Your task to perform on an android device: Open the calendar app, open the side menu, and click the "Day" option Image 0: 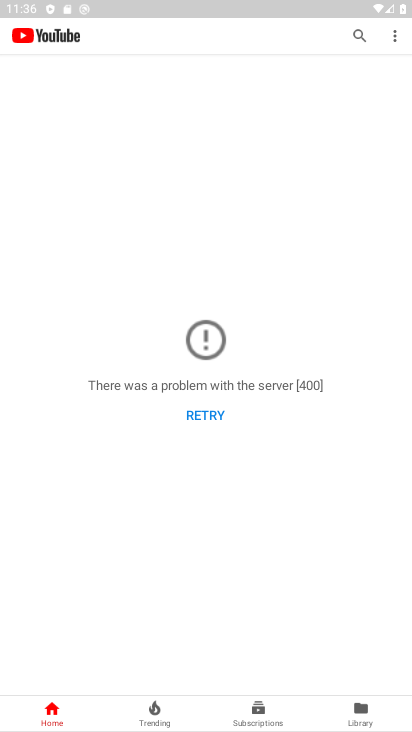
Step 0: press home button
Your task to perform on an android device: Open the calendar app, open the side menu, and click the "Day" option Image 1: 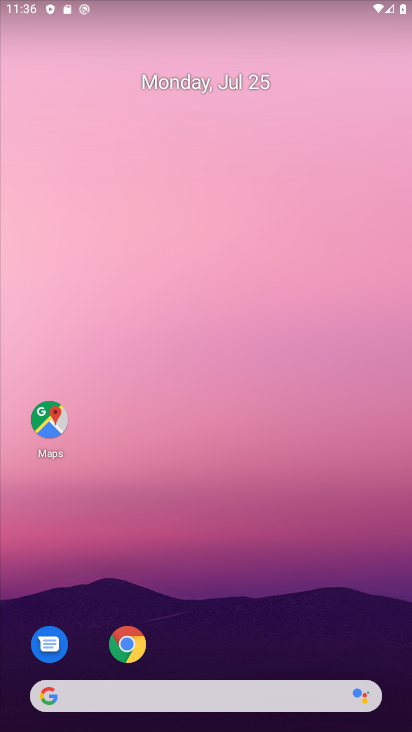
Step 1: drag from (201, 710) to (243, 71)
Your task to perform on an android device: Open the calendar app, open the side menu, and click the "Day" option Image 2: 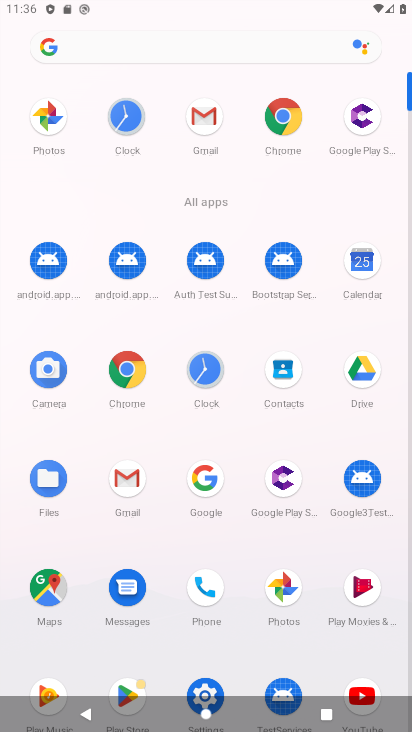
Step 2: click (363, 264)
Your task to perform on an android device: Open the calendar app, open the side menu, and click the "Day" option Image 3: 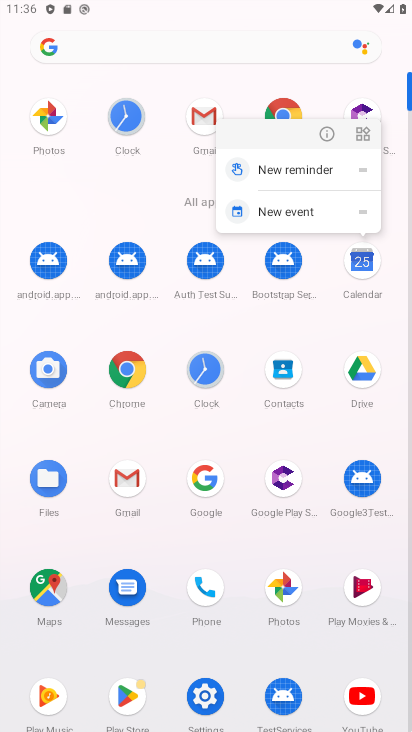
Step 3: click (363, 261)
Your task to perform on an android device: Open the calendar app, open the side menu, and click the "Day" option Image 4: 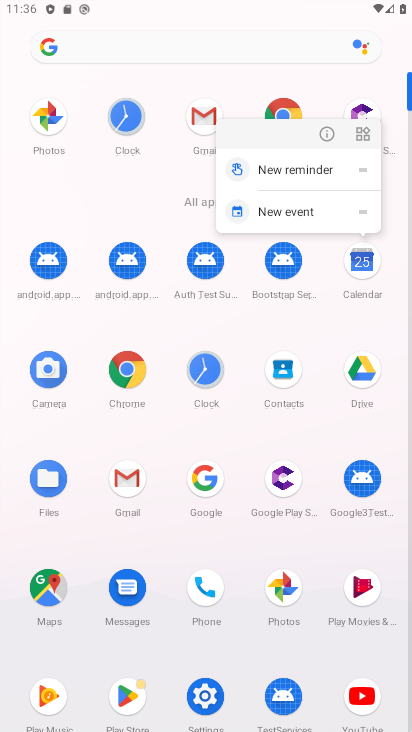
Step 4: click (363, 261)
Your task to perform on an android device: Open the calendar app, open the side menu, and click the "Day" option Image 5: 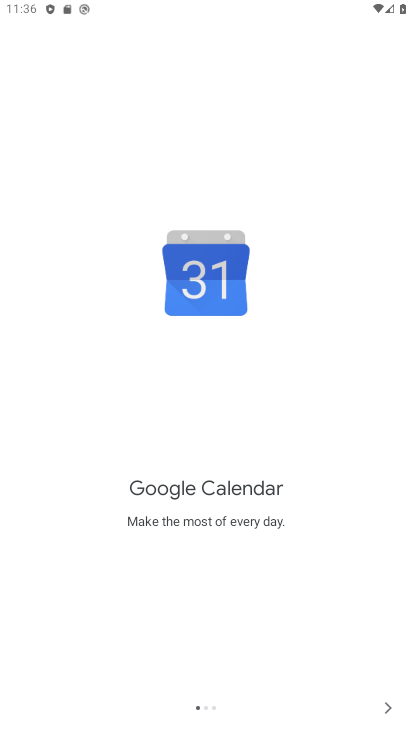
Step 5: click (390, 708)
Your task to perform on an android device: Open the calendar app, open the side menu, and click the "Day" option Image 6: 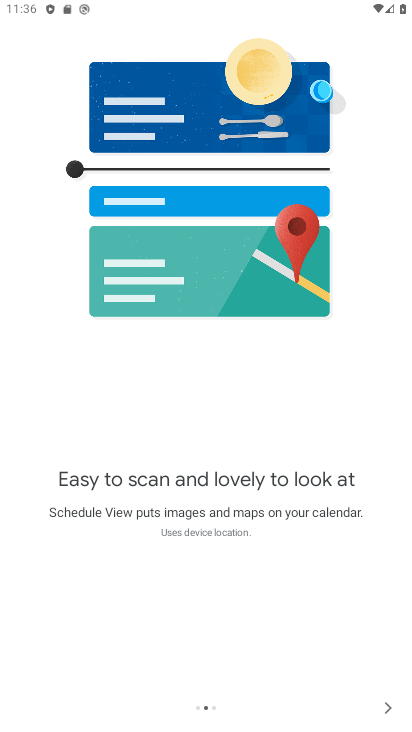
Step 6: click (390, 708)
Your task to perform on an android device: Open the calendar app, open the side menu, and click the "Day" option Image 7: 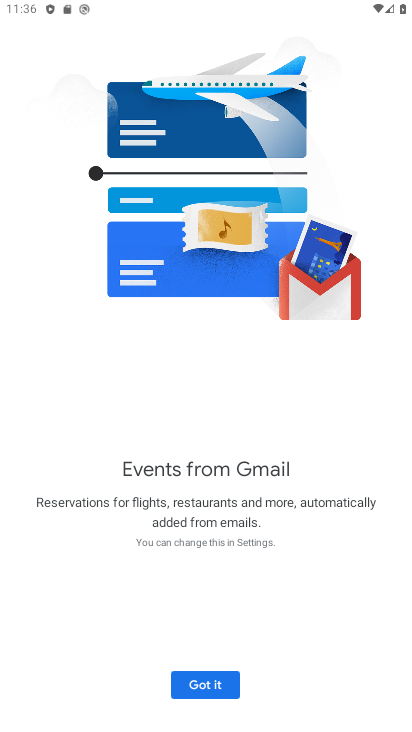
Step 7: click (190, 686)
Your task to perform on an android device: Open the calendar app, open the side menu, and click the "Day" option Image 8: 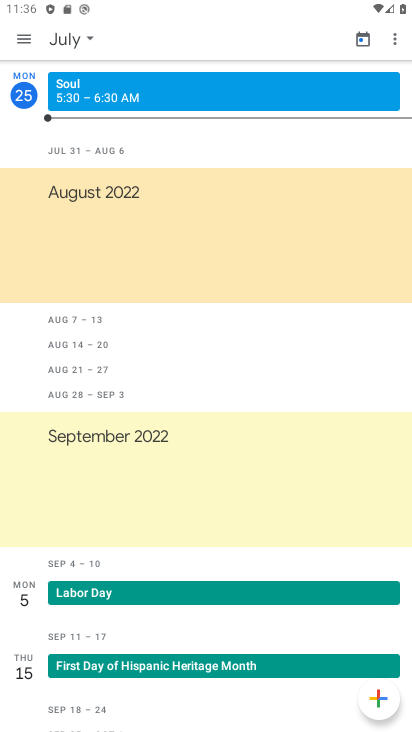
Step 8: click (32, 35)
Your task to perform on an android device: Open the calendar app, open the side menu, and click the "Day" option Image 9: 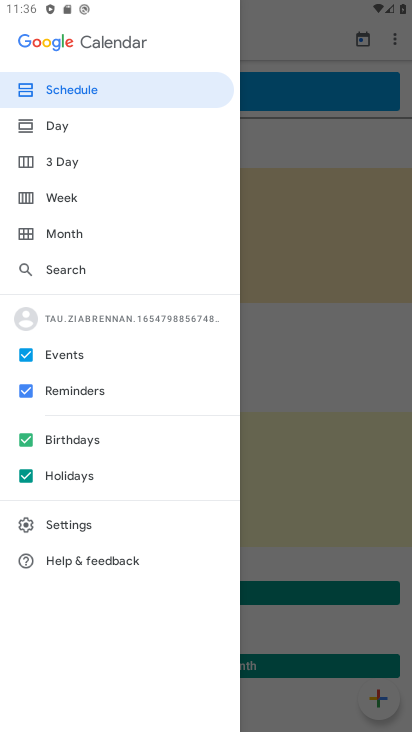
Step 9: click (64, 132)
Your task to perform on an android device: Open the calendar app, open the side menu, and click the "Day" option Image 10: 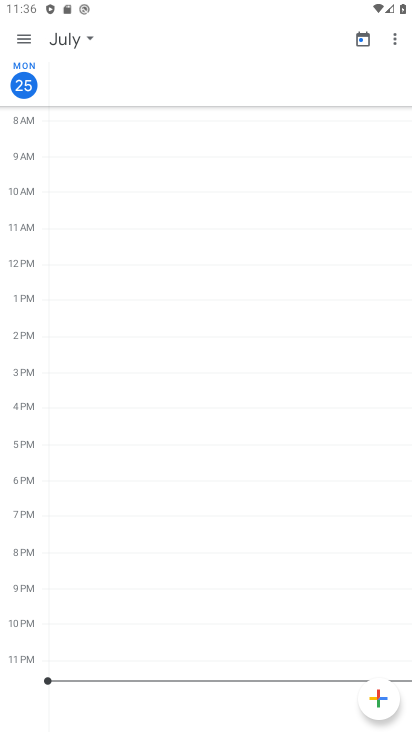
Step 10: task complete